Your task to perform on an android device: find snoozed emails in the gmail app Image 0: 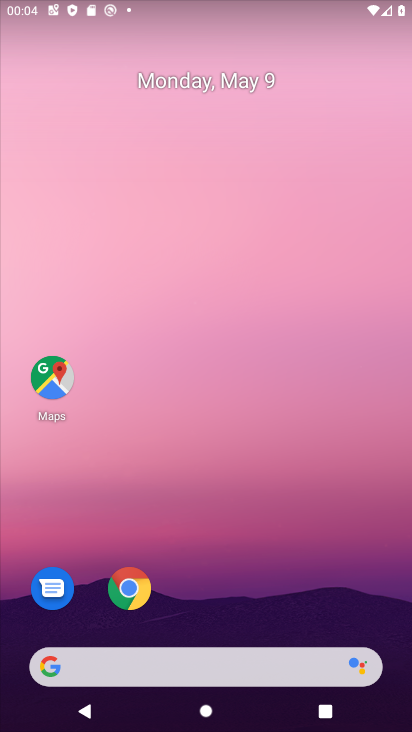
Step 0: drag from (227, 578) to (139, 116)
Your task to perform on an android device: find snoozed emails in the gmail app Image 1: 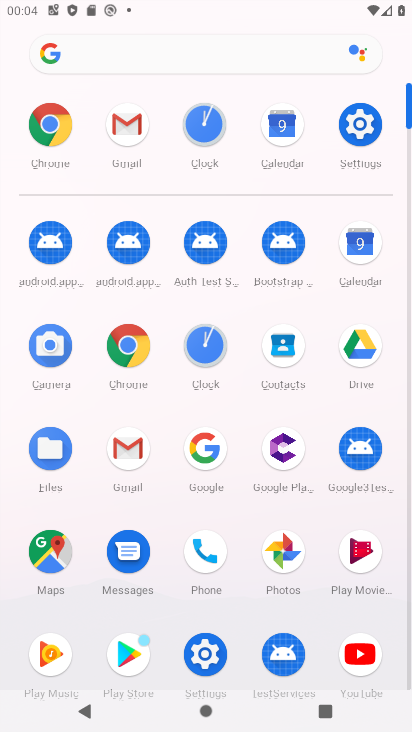
Step 1: click (127, 124)
Your task to perform on an android device: find snoozed emails in the gmail app Image 2: 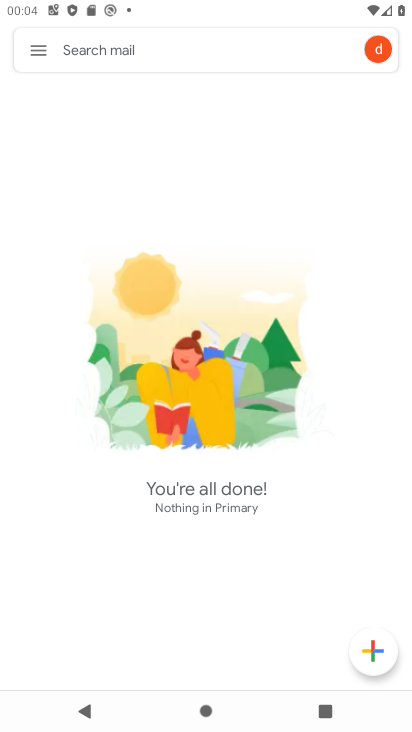
Step 2: click (37, 48)
Your task to perform on an android device: find snoozed emails in the gmail app Image 3: 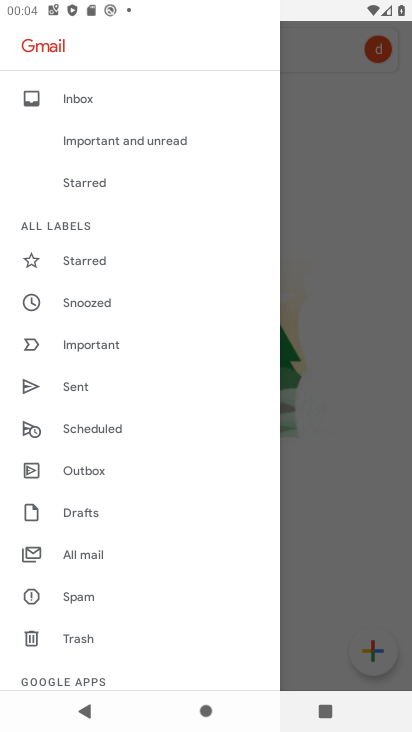
Step 3: click (82, 306)
Your task to perform on an android device: find snoozed emails in the gmail app Image 4: 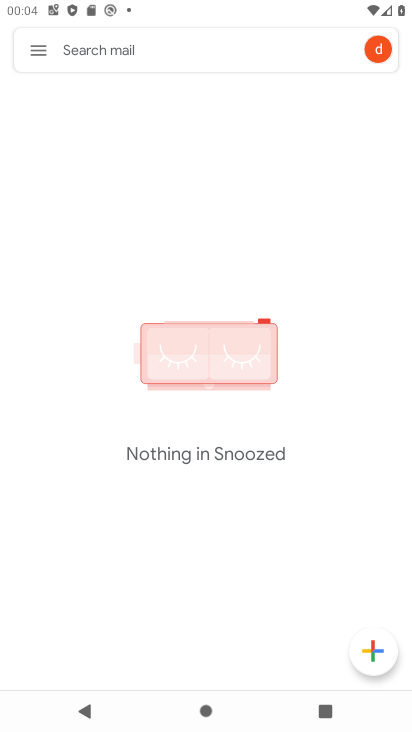
Step 4: task complete